Your task to perform on an android device: turn on wifi Image 0: 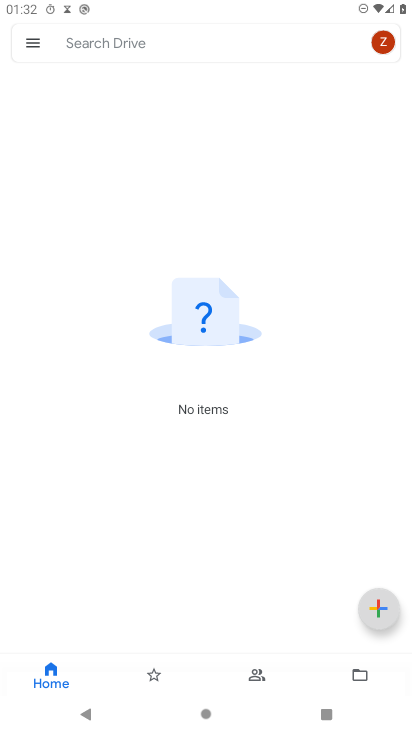
Step 0: press home button
Your task to perform on an android device: turn on wifi Image 1: 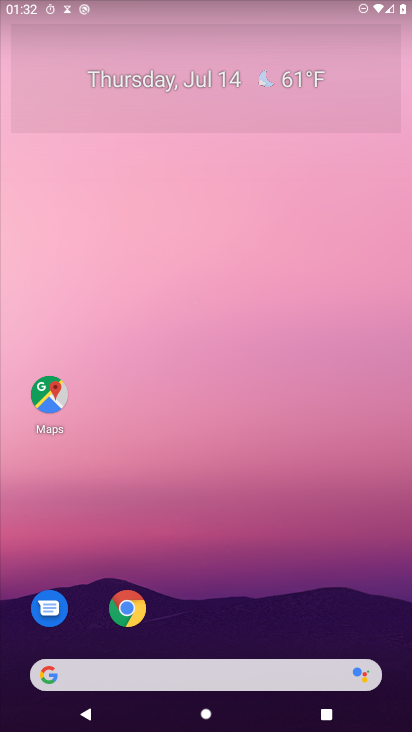
Step 1: drag from (225, 578) to (391, 154)
Your task to perform on an android device: turn on wifi Image 2: 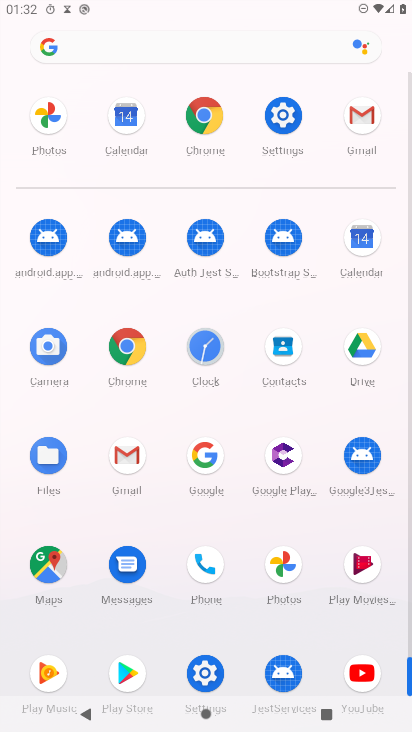
Step 2: click (283, 117)
Your task to perform on an android device: turn on wifi Image 3: 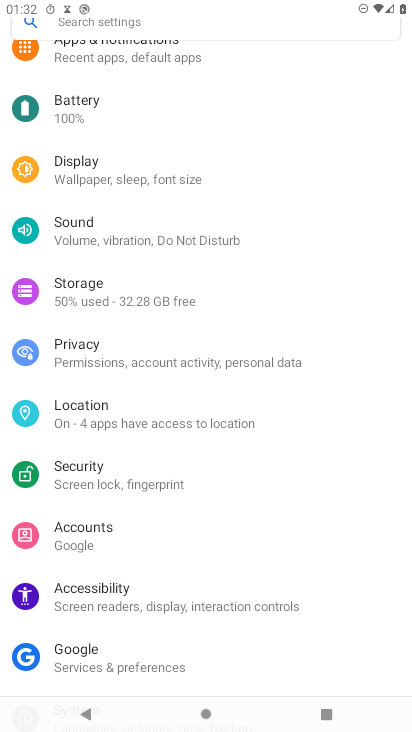
Step 3: drag from (234, 86) to (233, 464)
Your task to perform on an android device: turn on wifi Image 4: 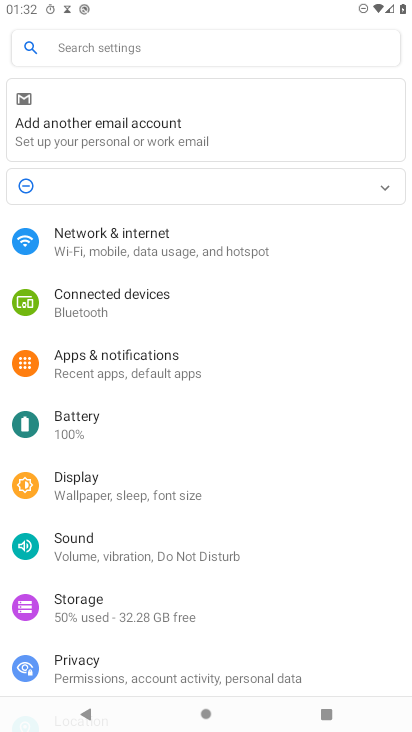
Step 4: click (159, 240)
Your task to perform on an android device: turn on wifi Image 5: 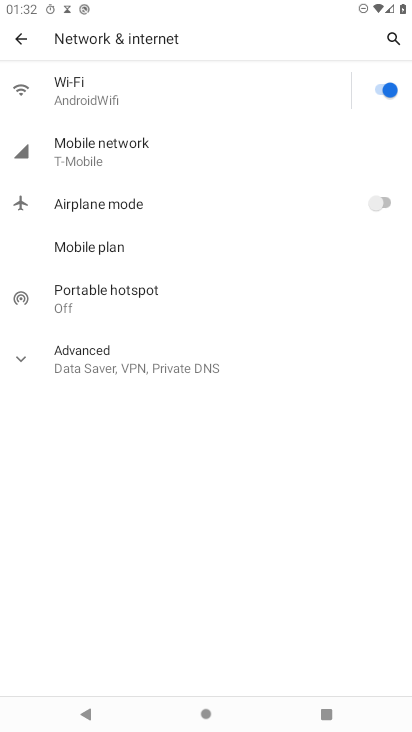
Step 5: click (101, 82)
Your task to perform on an android device: turn on wifi Image 6: 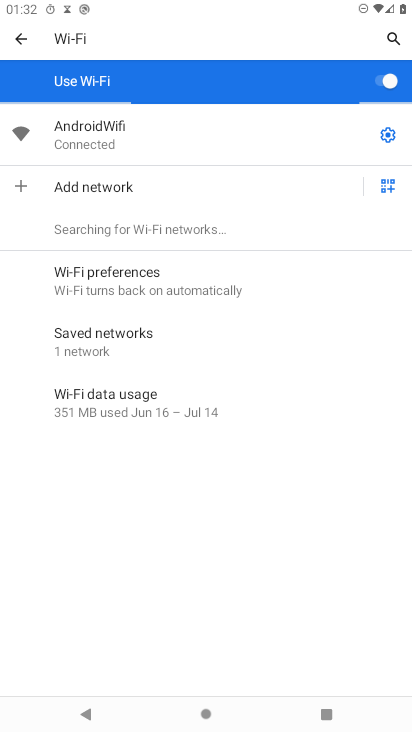
Step 6: task complete